Your task to perform on an android device: Go to Google Image 0: 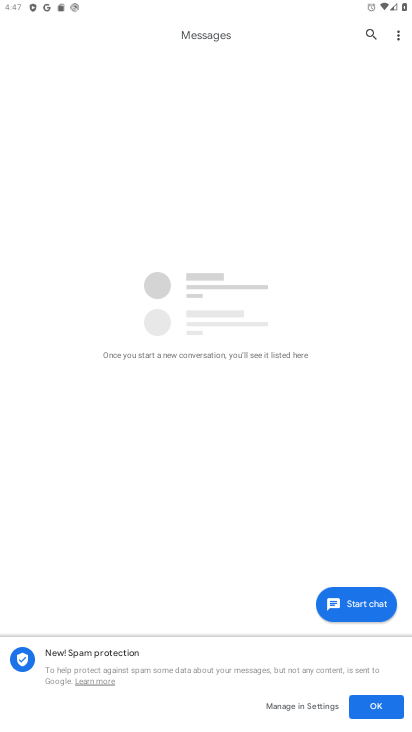
Step 0: press home button
Your task to perform on an android device: Go to Google Image 1: 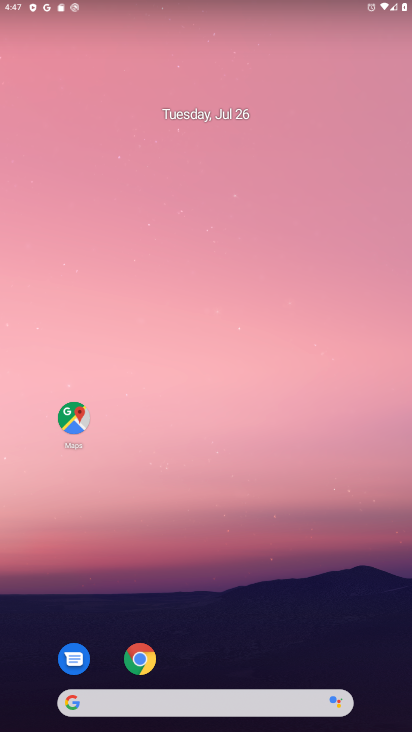
Step 1: drag from (214, 662) to (261, 37)
Your task to perform on an android device: Go to Google Image 2: 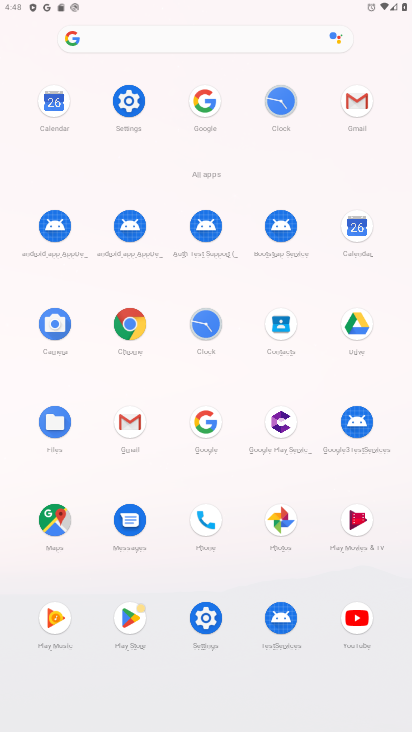
Step 2: click (207, 419)
Your task to perform on an android device: Go to Google Image 3: 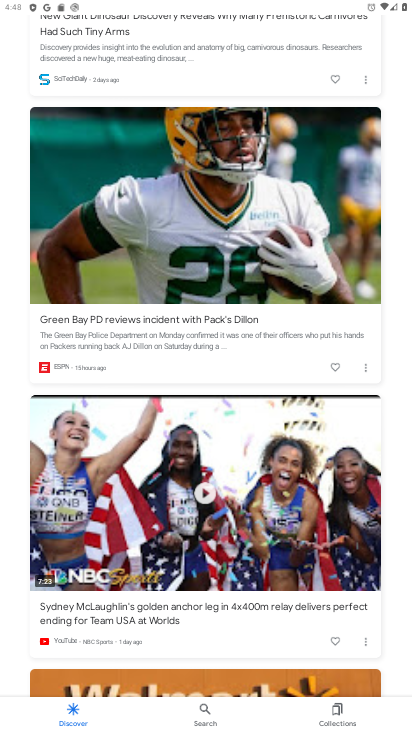
Step 3: click (198, 713)
Your task to perform on an android device: Go to Google Image 4: 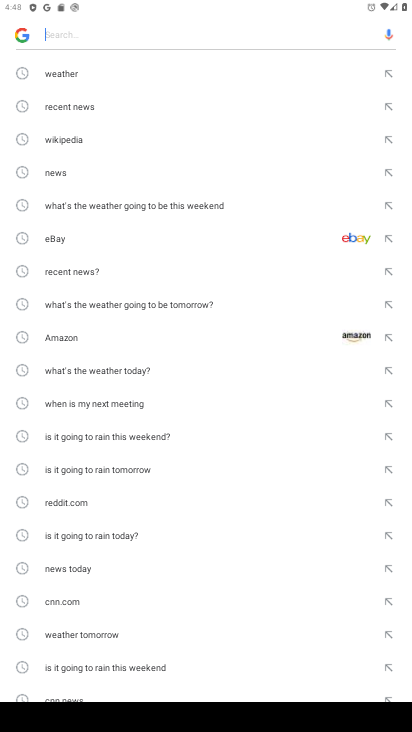
Step 4: task complete